Your task to perform on an android device: turn off notifications settings in the gmail app Image 0: 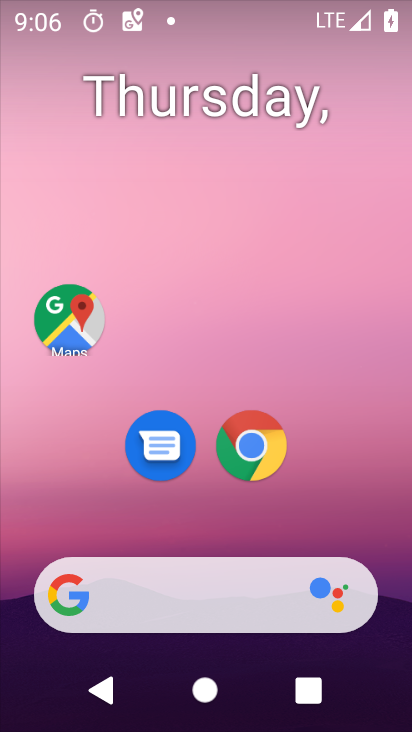
Step 0: drag from (251, 217) to (247, 171)
Your task to perform on an android device: turn off notifications settings in the gmail app Image 1: 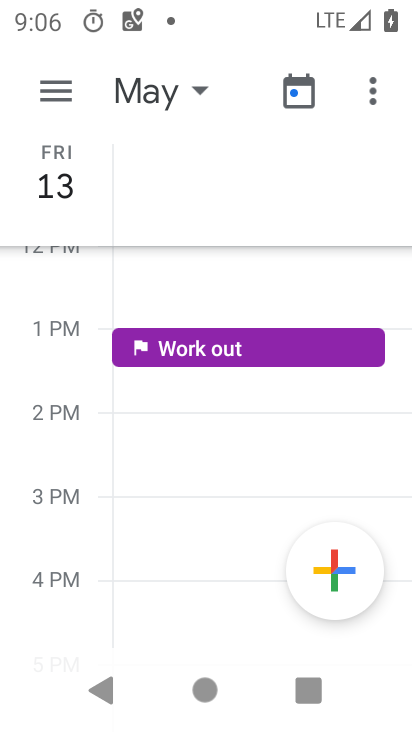
Step 1: drag from (242, 333) to (268, 613)
Your task to perform on an android device: turn off notifications settings in the gmail app Image 2: 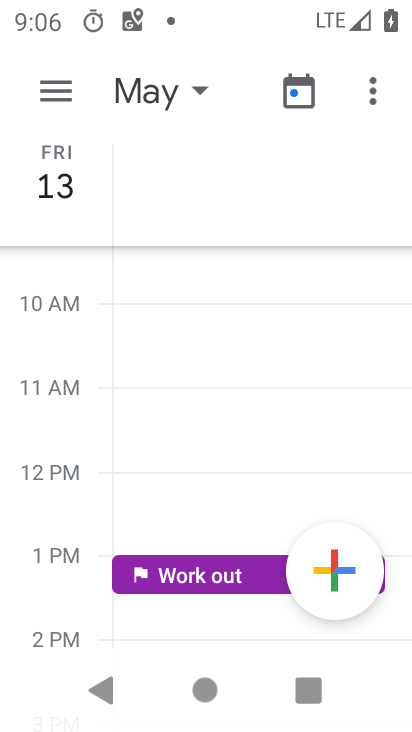
Step 2: drag from (248, 597) to (243, 407)
Your task to perform on an android device: turn off notifications settings in the gmail app Image 3: 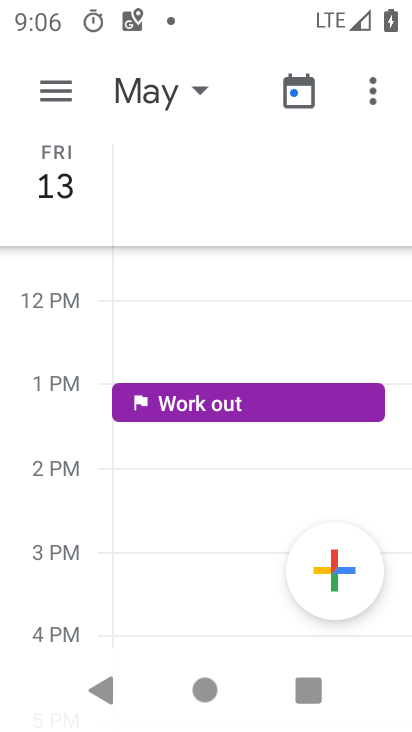
Step 3: click (191, 84)
Your task to perform on an android device: turn off notifications settings in the gmail app Image 4: 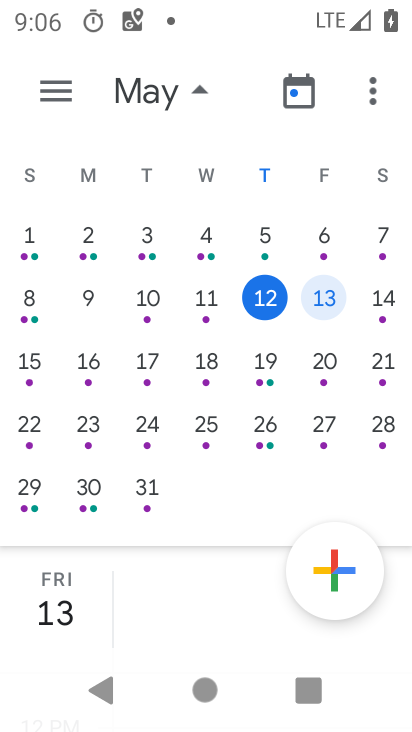
Step 4: click (195, 82)
Your task to perform on an android device: turn off notifications settings in the gmail app Image 5: 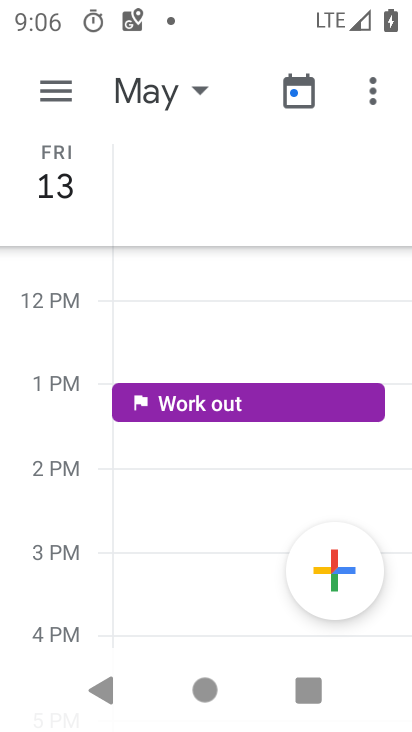
Step 5: drag from (175, 497) to (200, 314)
Your task to perform on an android device: turn off notifications settings in the gmail app Image 6: 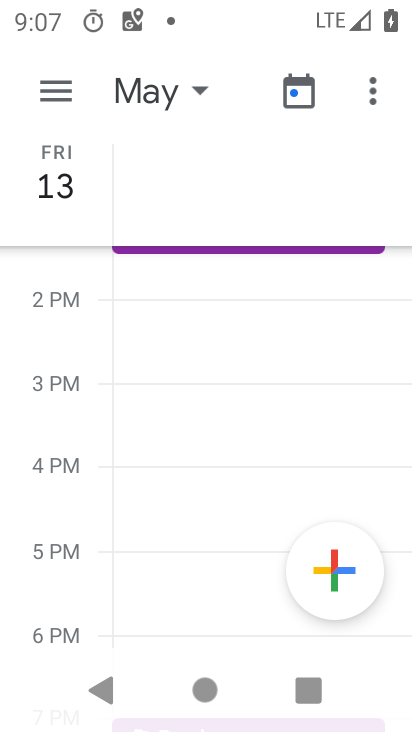
Step 6: drag from (202, 257) to (259, 610)
Your task to perform on an android device: turn off notifications settings in the gmail app Image 7: 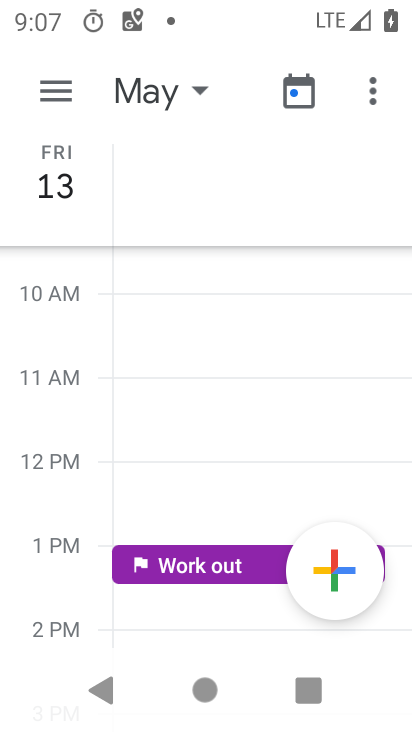
Step 7: click (50, 95)
Your task to perform on an android device: turn off notifications settings in the gmail app Image 8: 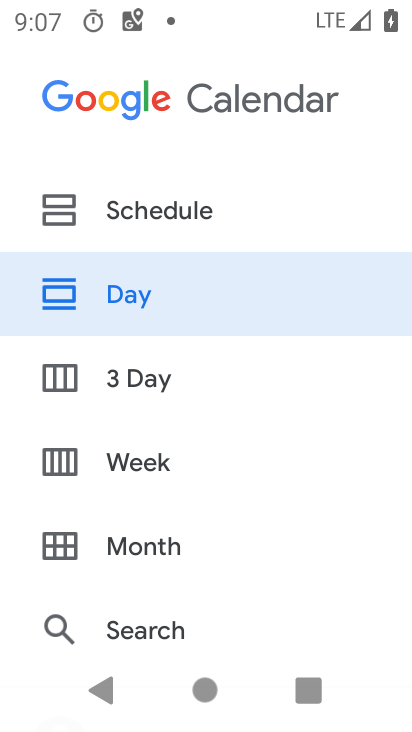
Step 8: drag from (167, 574) to (191, 104)
Your task to perform on an android device: turn off notifications settings in the gmail app Image 9: 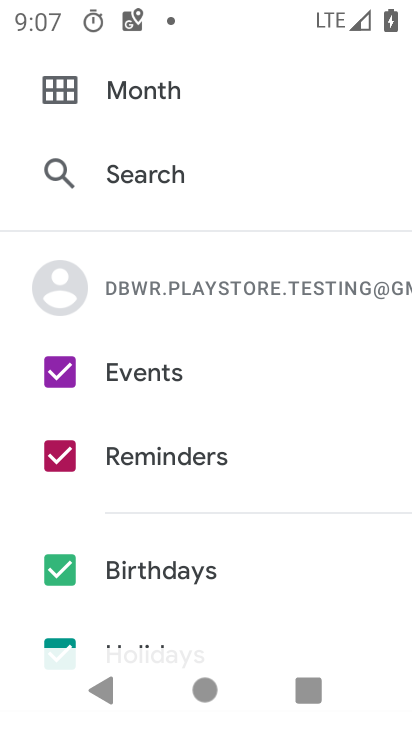
Step 9: drag from (195, 601) to (195, 212)
Your task to perform on an android device: turn off notifications settings in the gmail app Image 10: 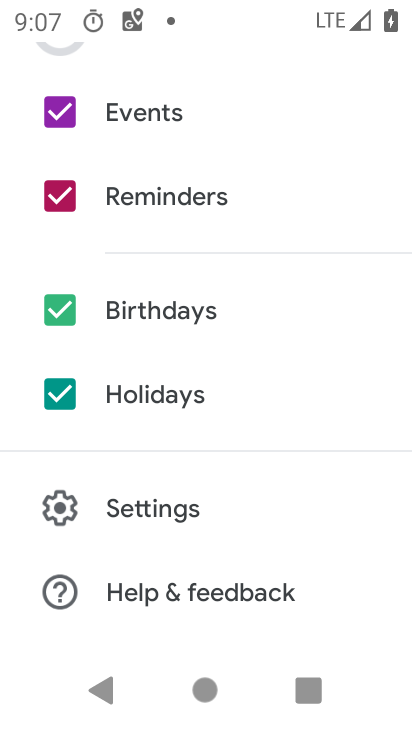
Step 10: click (178, 510)
Your task to perform on an android device: turn off notifications settings in the gmail app Image 11: 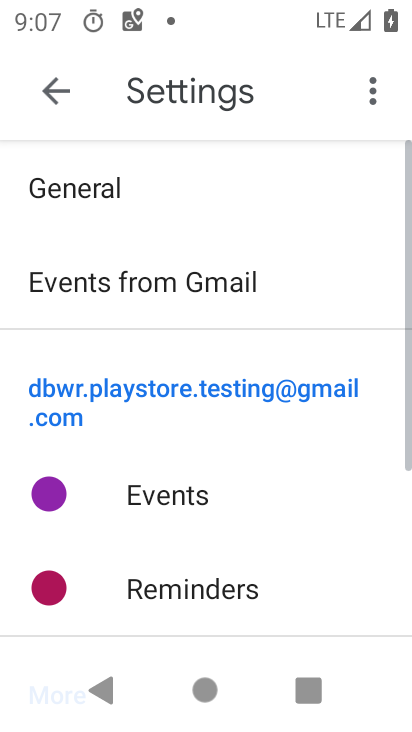
Step 11: drag from (195, 544) to (192, 344)
Your task to perform on an android device: turn off notifications settings in the gmail app Image 12: 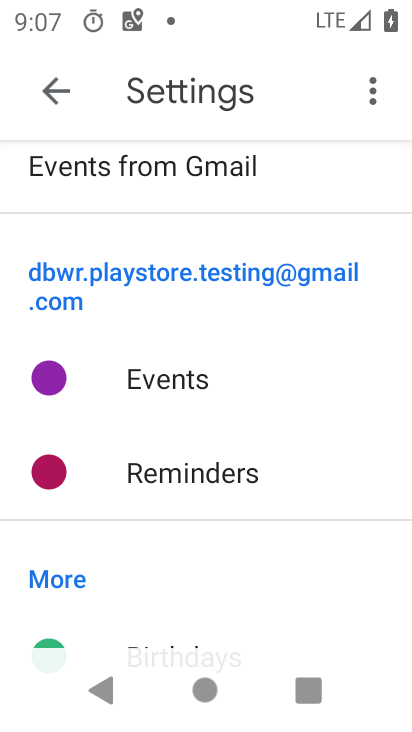
Step 12: drag from (197, 578) to (218, 324)
Your task to perform on an android device: turn off notifications settings in the gmail app Image 13: 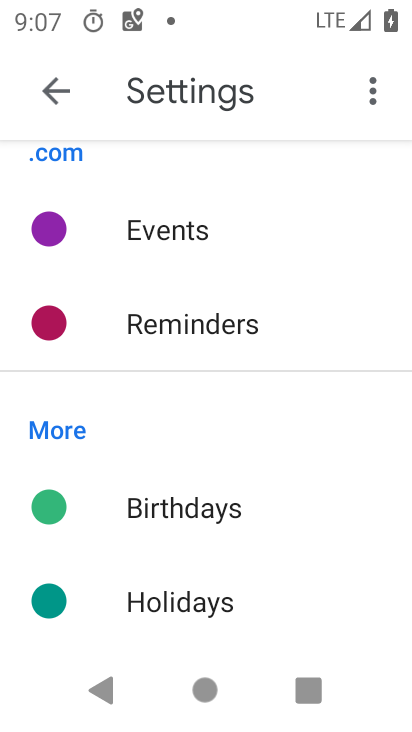
Step 13: drag from (228, 522) to (291, 188)
Your task to perform on an android device: turn off notifications settings in the gmail app Image 14: 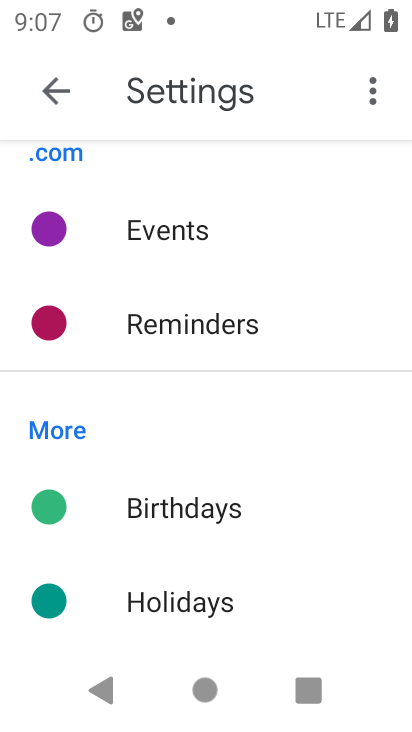
Step 14: drag from (232, 534) to (232, 333)
Your task to perform on an android device: turn off notifications settings in the gmail app Image 15: 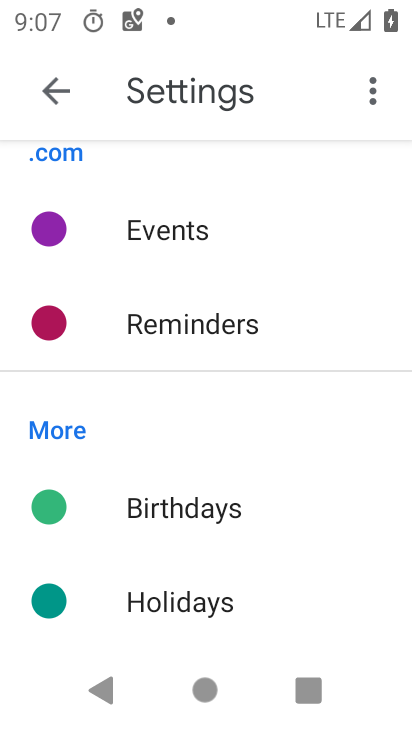
Step 15: drag from (219, 569) to (249, 370)
Your task to perform on an android device: turn off notifications settings in the gmail app Image 16: 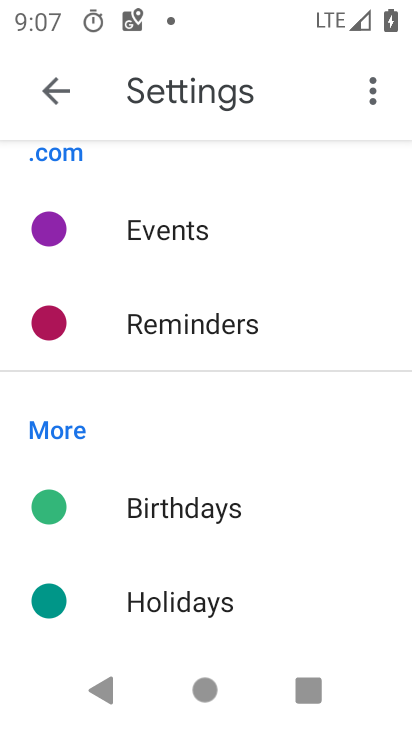
Step 16: drag from (255, 225) to (253, 570)
Your task to perform on an android device: turn off notifications settings in the gmail app Image 17: 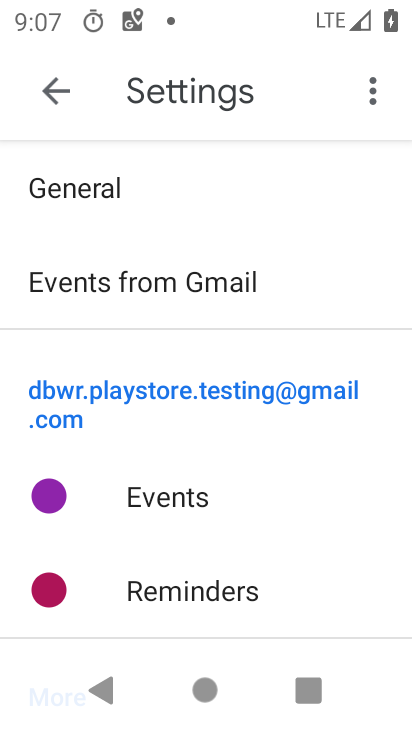
Step 17: drag from (249, 236) to (209, 599)
Your task to perform on an android device: turn off notifications settings in the gmail app Image 18: 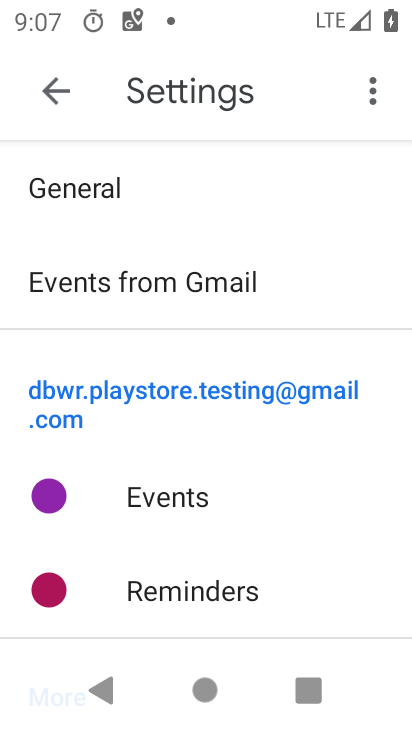
Step 18: drag from (223, 328) to (263, 630)
Your task to perform on an android device: turn off notifications settings in the gmail app Image 19: 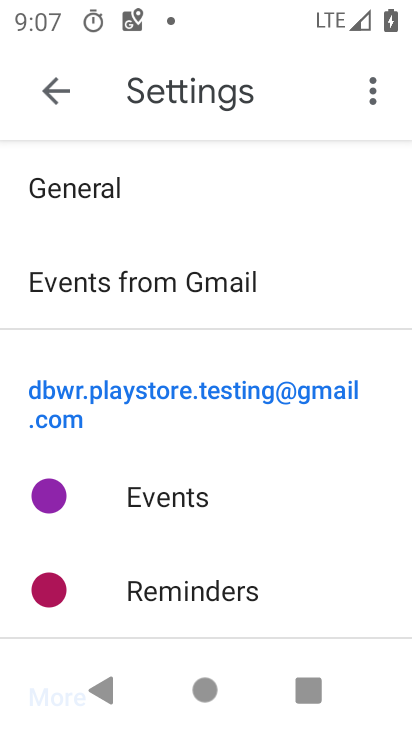
Step 19: drag from (213, 517) to (254, 198)
Your task to perform on an android device: turn off notifications settings in the gmail app Image 20: 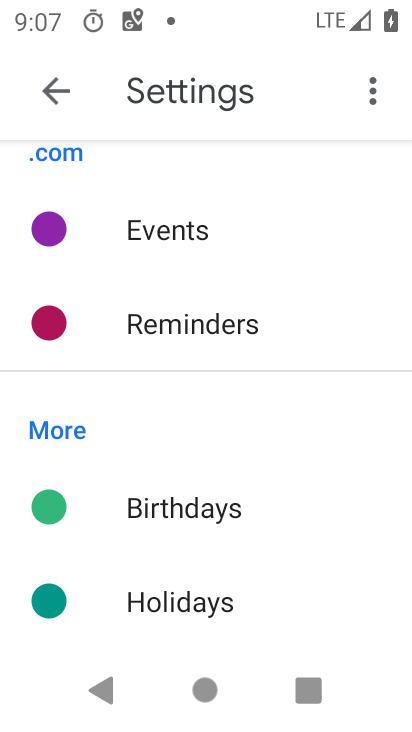
Step 20: drag from (244, 504) to (257, 203)
Your task to perform on an android device: turn off notifications settings in the gmail app Image 21: 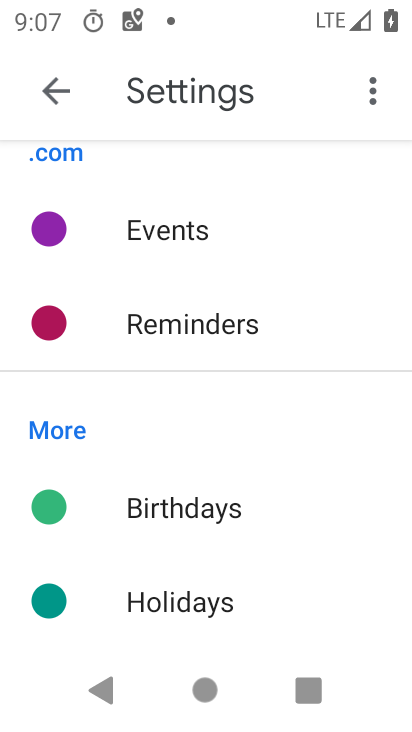
Step 21: press home button
Your task to perform on an android device: turn off notifications settings in the gmail app Image 22: 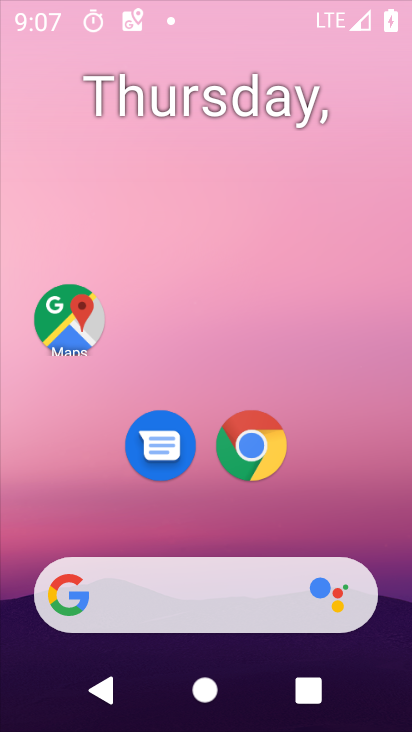
Step 22: drag from (224, 553) to (231, 167)
Your task to perform on an android device: turn off notifications settings in the gmail app Image 23: 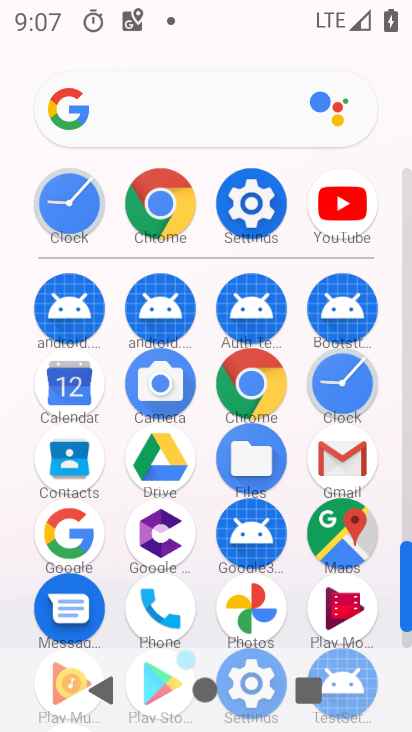
Step 23: click (334, 448)
Your task to perform on an android device: turn off notifications settings in the gmail app Image 24: 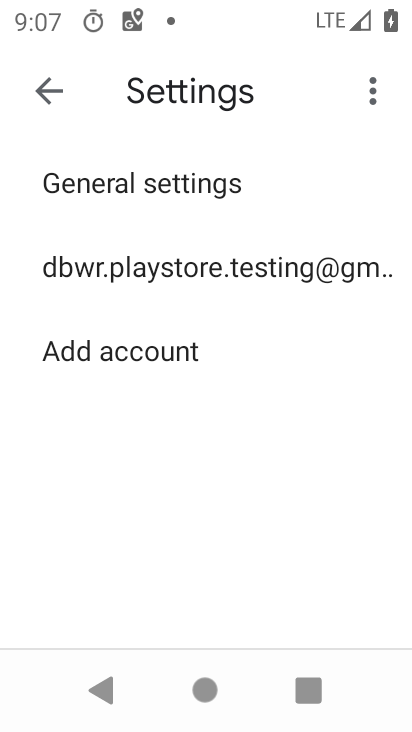
Step 24: click (161, 284)
Your task to perform on an android device: turn off notifications settings in the gmail app Image 25: 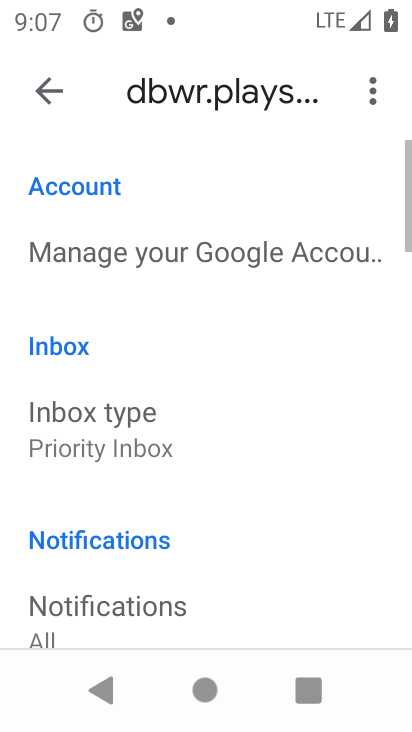
Step 25: drag from (267, 512) to (301, 274)
Your task to perform on an android device: turn off notifications settings in the gmail app Image 26: 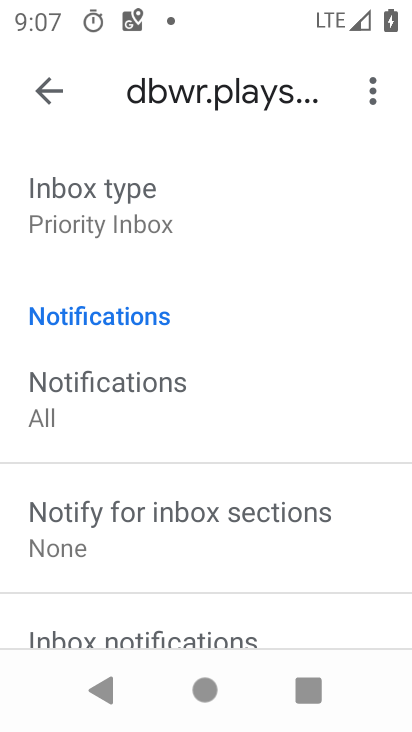
Step 26: drag from (209, 546) to (304, 175)
Your task to perform on an android device: turn off notifications settings in the gmail app Image 27: 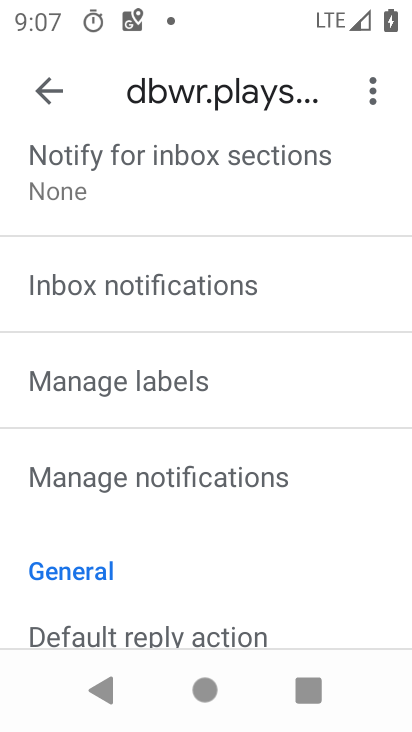
Step 27: click (153, 475)
Your task to perform on an android device: turn off notifications settings in the gmail app Image 28: 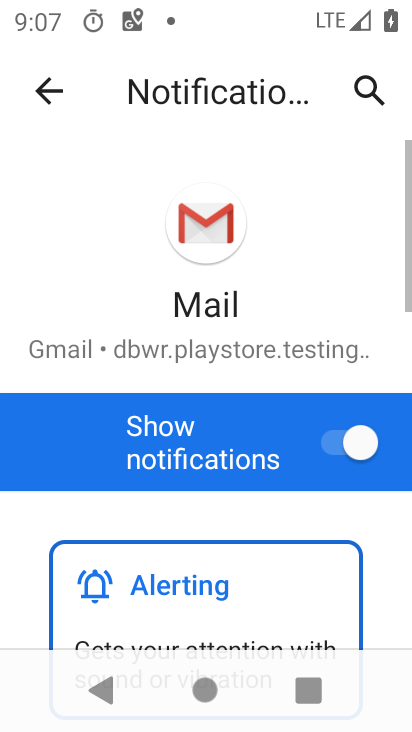
Step 28: drag from (269, 553) to (363, 173)
Your task to perform on an android device: turn off notifications settings in the gmail app Image 29: 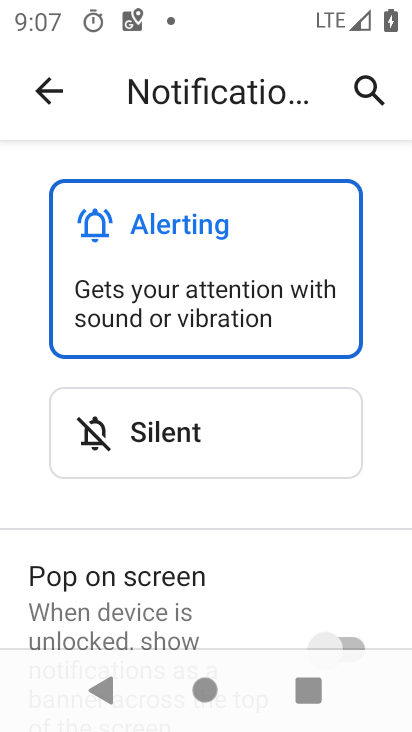
Step 29: drag from (268, 182) to (321, 604)
Your task to perform on an android device: turn off notifications settings in the gmail app Image 30: 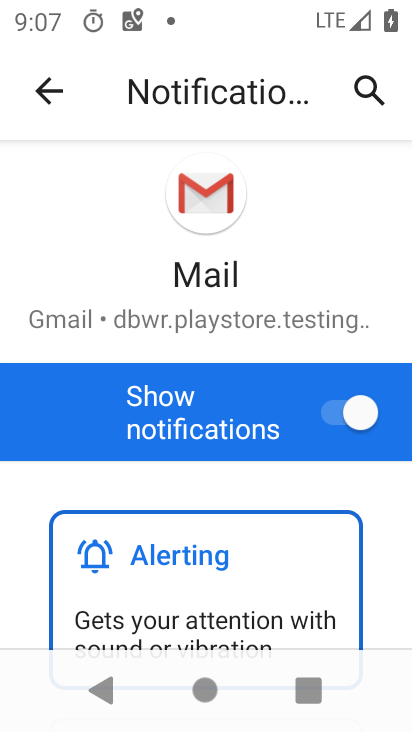
Step 30: click (351, 428)
Your task to perform on an android device: turn off notifications settings in the gmail app Image 31: 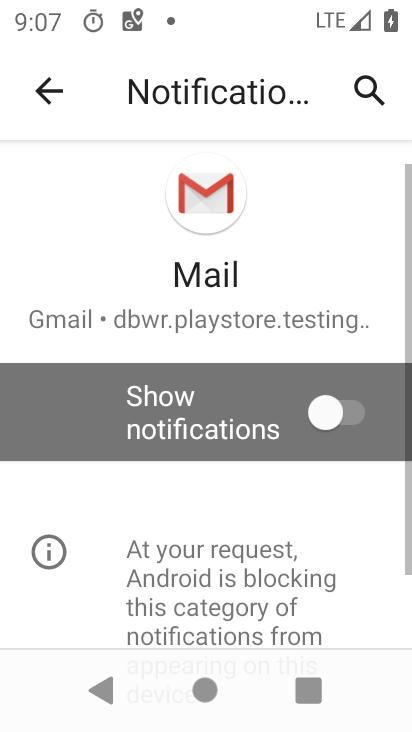
Step 31: task complete